Your task to perform on an android device: Go to battery settings Image 0: 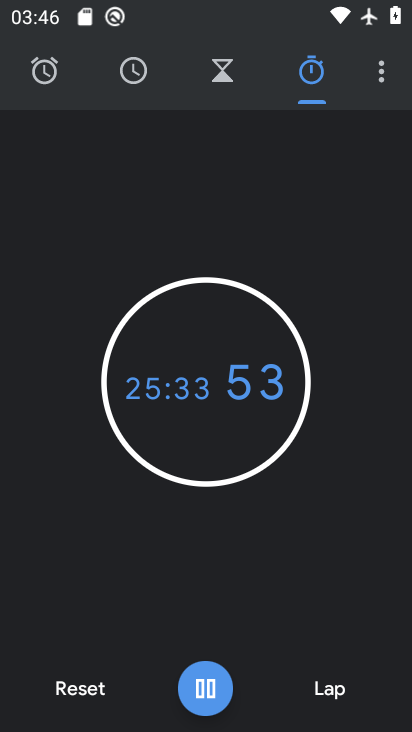
Step 0: press home button
Your task to perform on an android device: Go to battery settings Image 1: 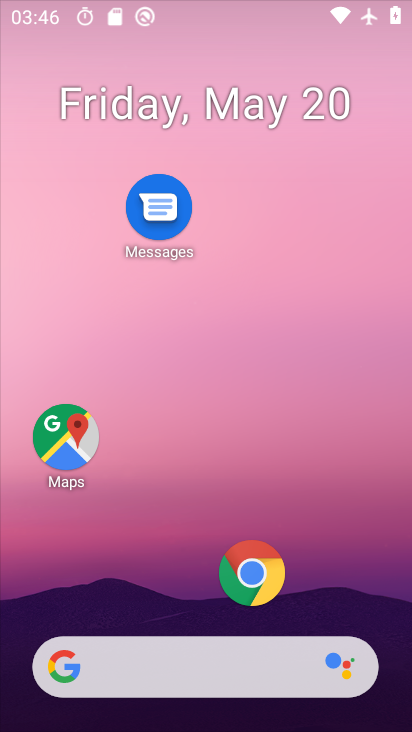
Step 1: drag from (208, 511) to (215, 170)
Your task to perform on an android device: Go to battery settings Image 2: 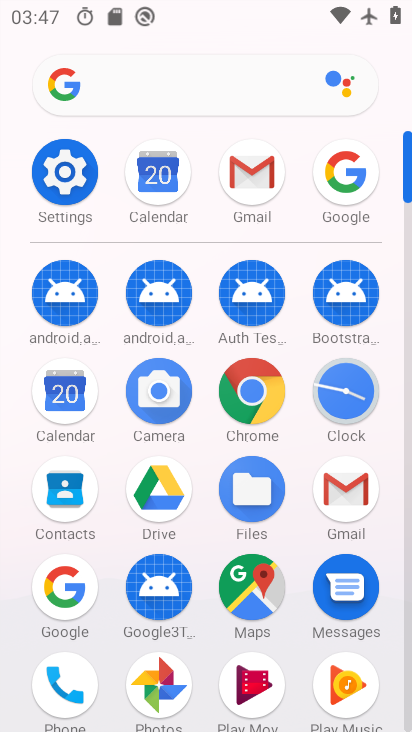
Step 2: click (65, 192)
Your task to perform on an android device: Go to battery settings Image 3: 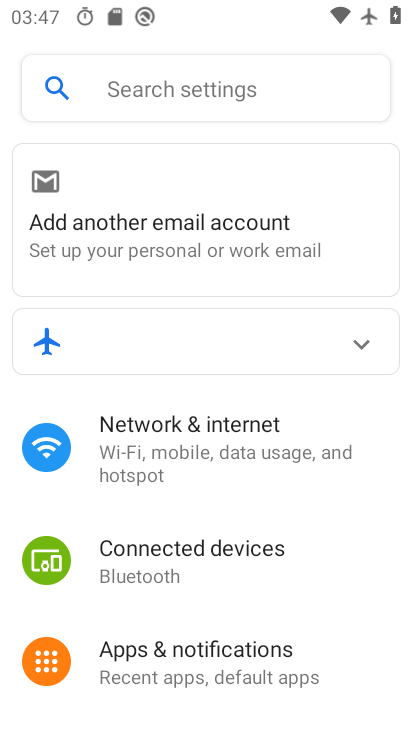
Step 3: drag from (176, 632) to (176, 277)
Your task to perform on an android device: Go to battery settings Image 4: 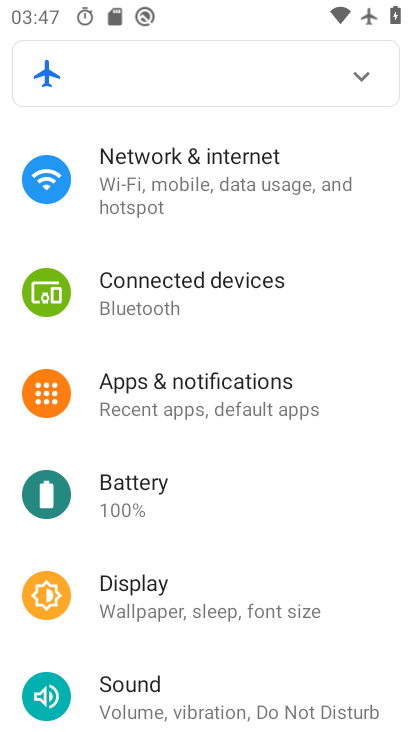
Step 4: click (116, 480)
Your task to perform on an android device: Go to battery settings Image 5: 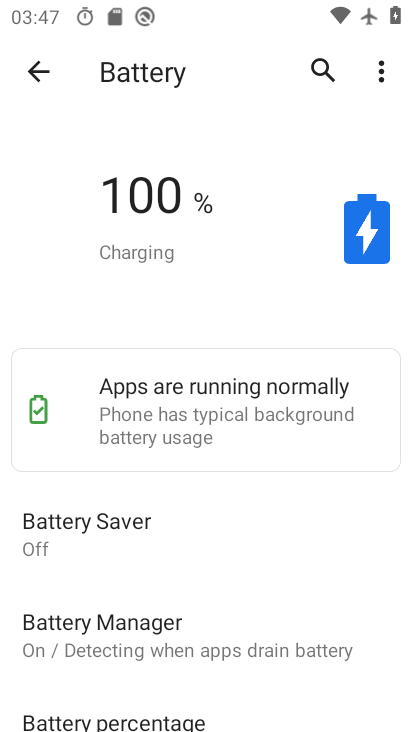
Step 5: task complete